Your task to perform on an android device: toggle location history Image 0: 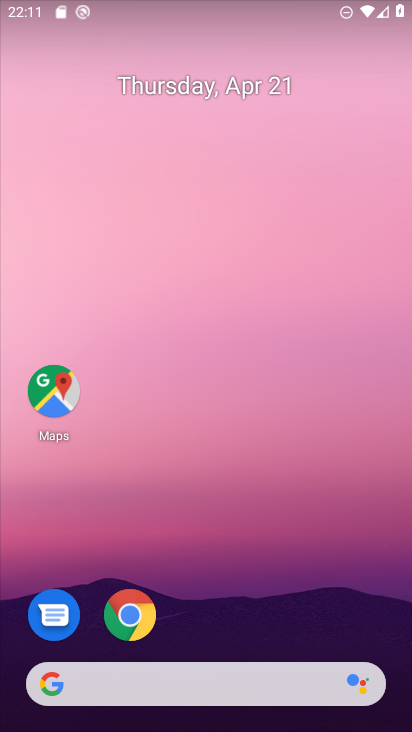
Step 0: click (173, 80)
Your task to perform on an android device: toggle location history Image 1: 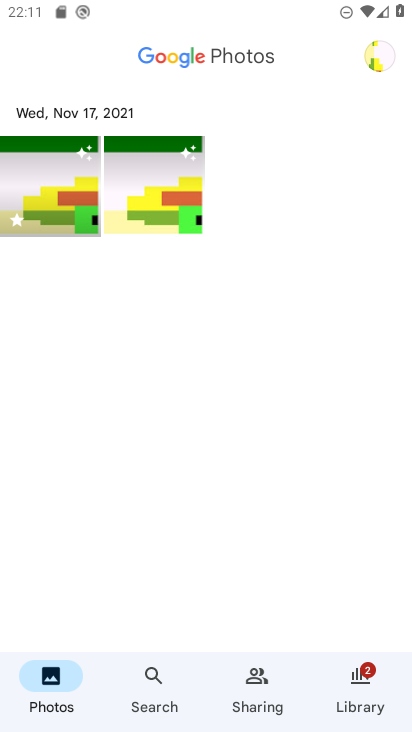
Step 1: press home button
Your task to perform on an android device: toggle location history Image 2: 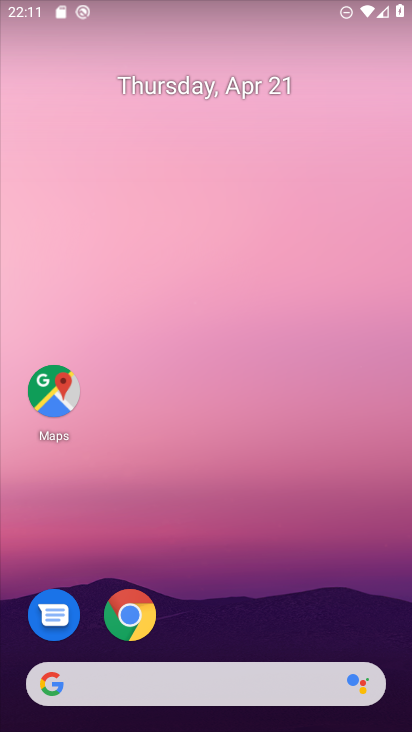
Step 2: drag from (223, 553) to (316, 4)
Your task to perform on an android device: toggle location history Image 3: 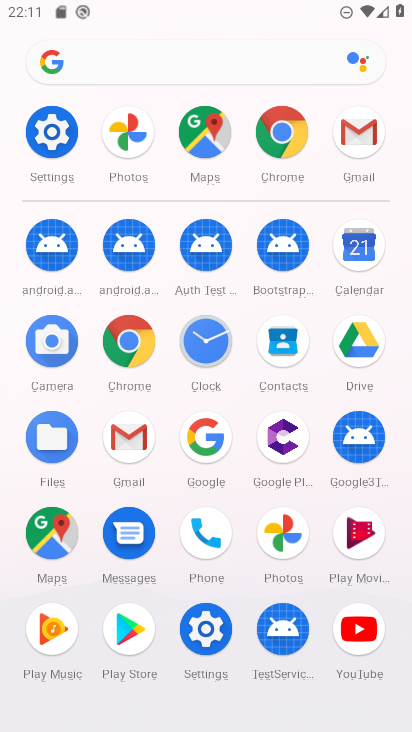
Step 3: click (198, 630)
Your task to perform on an android device: toggle location history Image 4: 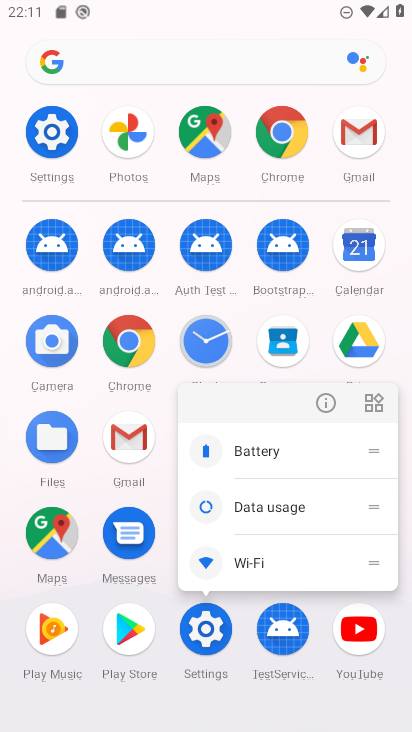
Step 4: click (322, 401)
Your task to perform on an android device: toggle location history Image 5: 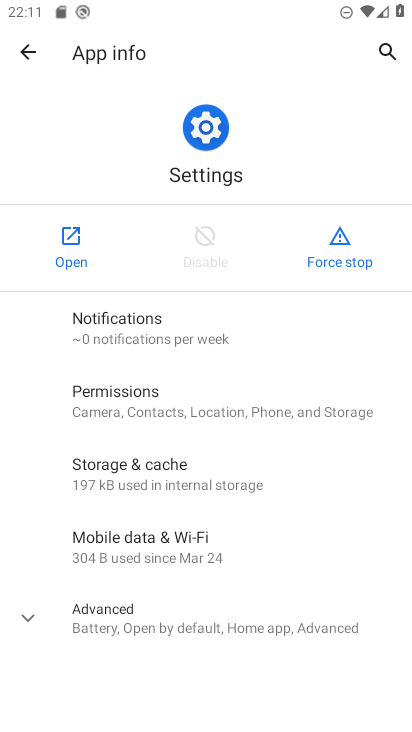
Step 5: click (67, 230)
Your task to perform on an android device: toggle location history Image 6: 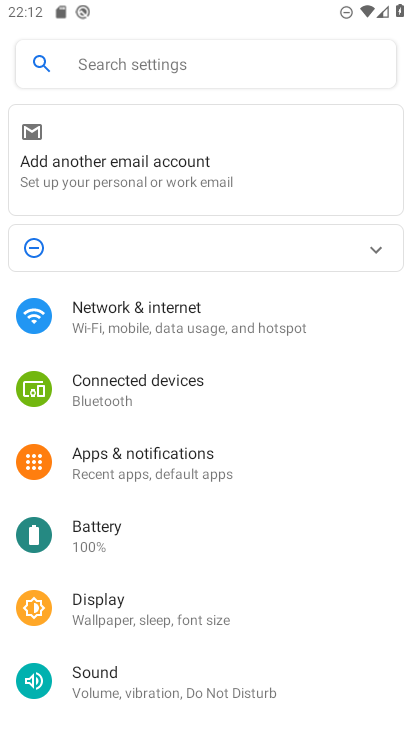
Step 6: drag from (178, 666) to (218, 224)
Your task to perform on an android device: toggle location history Image 7: 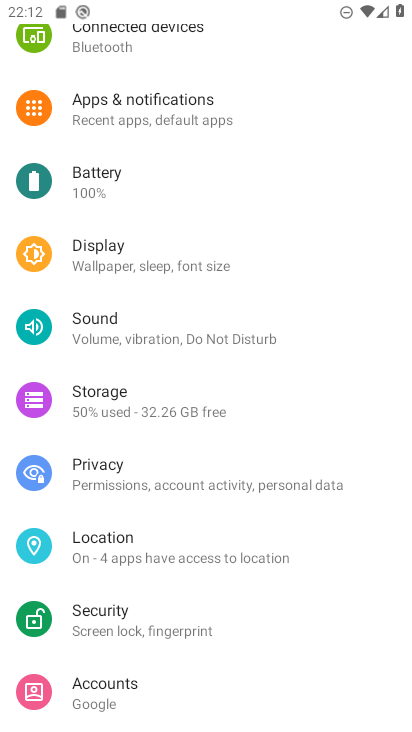
Step 7: click (149, 551)
Your task to perform on an android device: toggle location history Image 8: 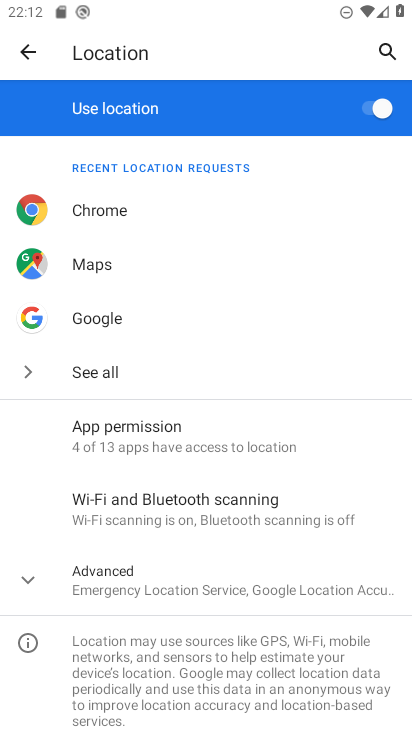
Step 8: click (192, 575)
Your task to perform on an android device: toggle location history Image 9: 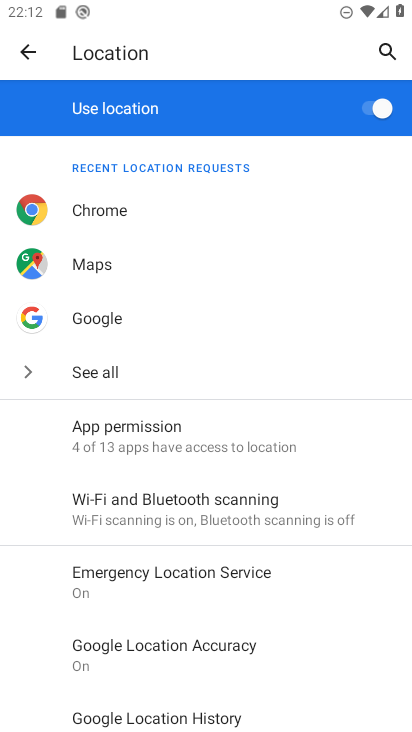
Step 9: drag from (217, 603) to (262, 297)
Your task to perform on an android device: toggle location history Image 10: 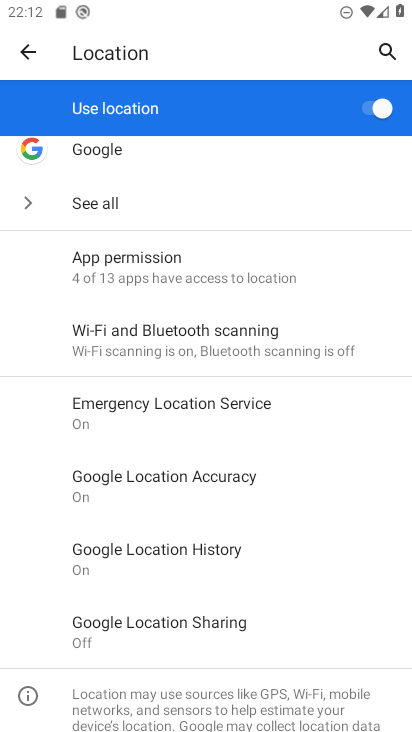
Step 10: click (227, 559)
Your task to perform on an android device: toggle location history Image 11: 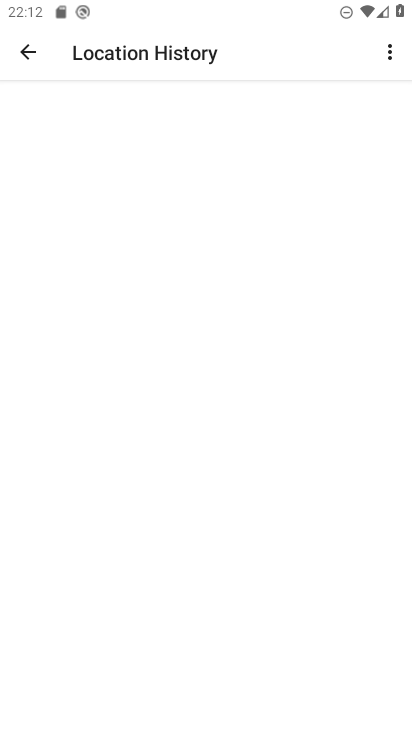
Step 11: drag from (226, 540) to (250, 3)
Your task to perform on an android device: toggle location history Image 12: 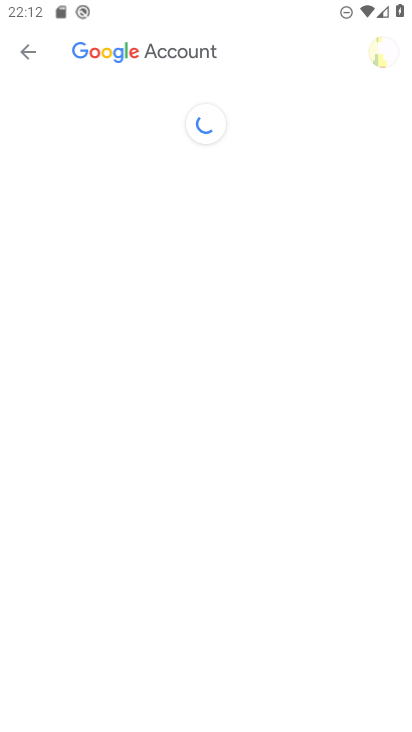
Step 12: drag from (226, 572) to (241, 130)
Your task to perform on an android device: toggle location history Image 13: 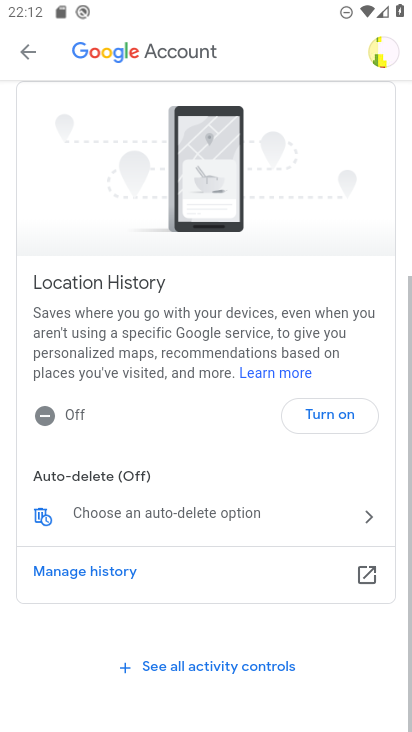
Step 13: drag from (220, 525) to (239, 122)
Your task to perform on an android device: toggle location history Image 14: 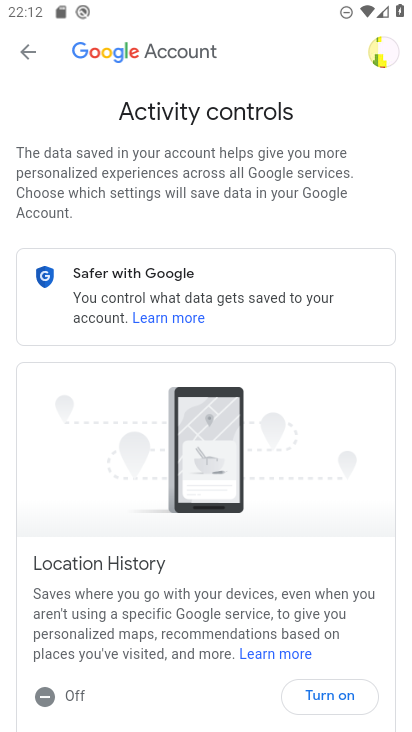
Step 14: drag from (231, 510) to (244, 140)
Your task to perform on an android device: toggle location history Image 15: 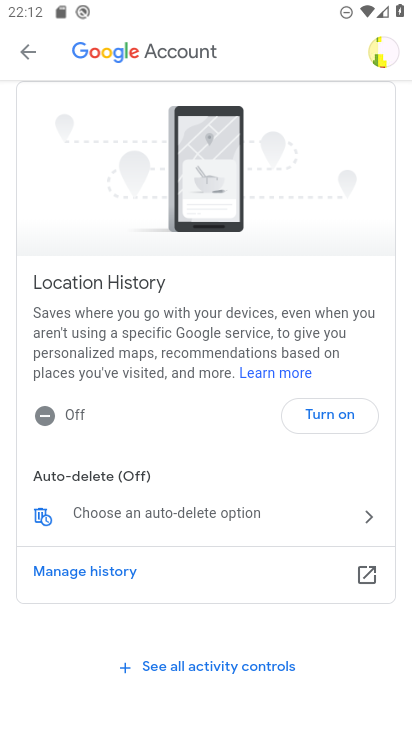
Step 15: click (344, 415)
Your task to perform on an android device: toggle location history Image 16: 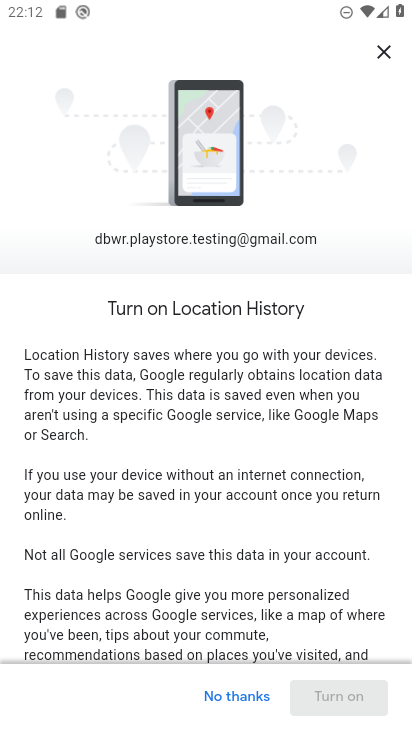
Step 16: drag from (248, 455) to (302, 94)
Your task to perform on an android device: toggle location history Image 17: 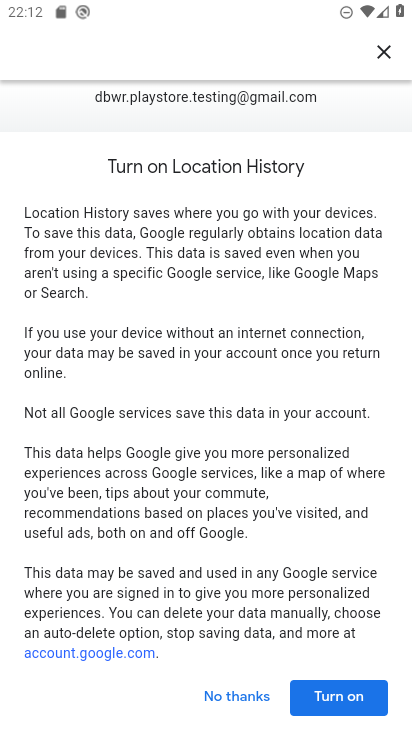
Step 17: click (340, 688)
Your task to perform on an android device: toggle location history Image 18: 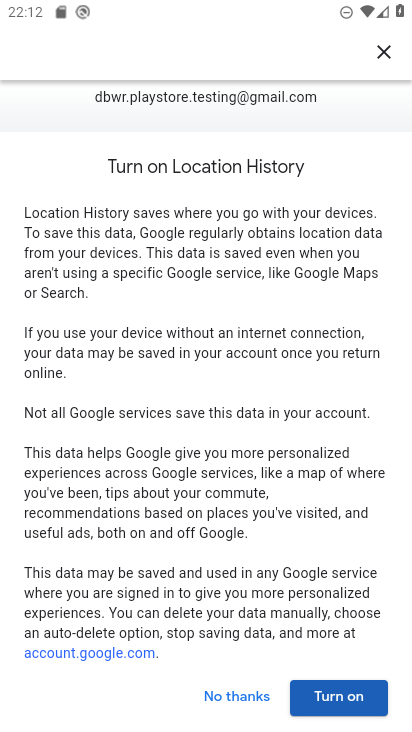
Step 18: click (332, 689)
Your task to perform on an android device: toggle location history Image 19: 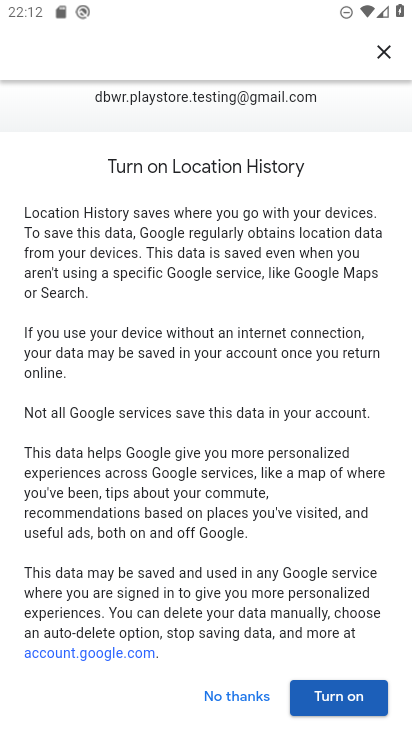
Step 19: click (334, 696)
Your task to perform on an android device: toggle location history Image 20: 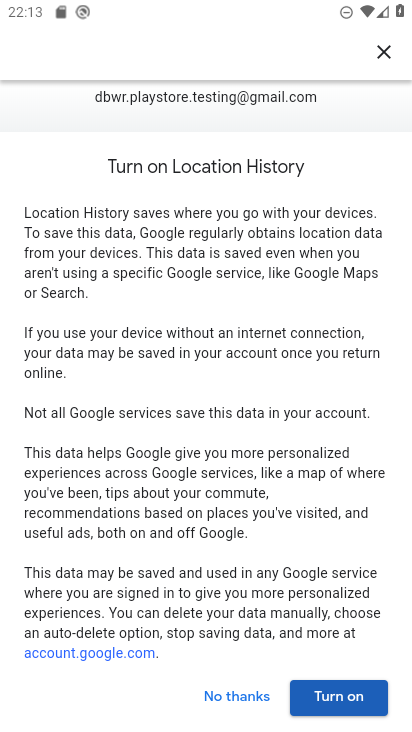
Step 20: drag from (169, 554) to (201, 185)
Your task to perform on an android device: toggle location history Image 21: 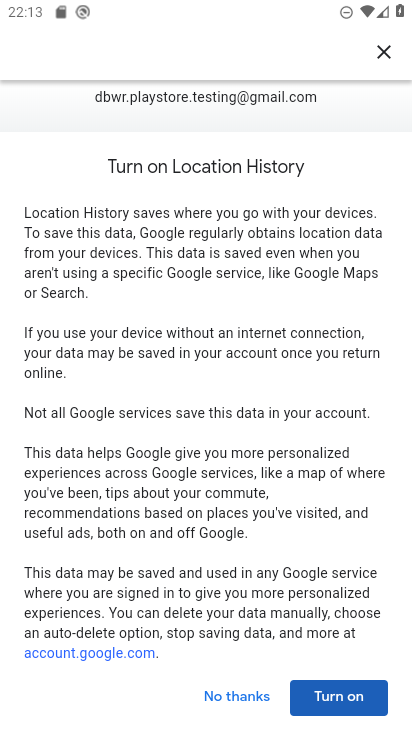
Step 21: drag from (214, 625) to (241, 314)
Your task to perform on an android device: toggle location history Image 22: 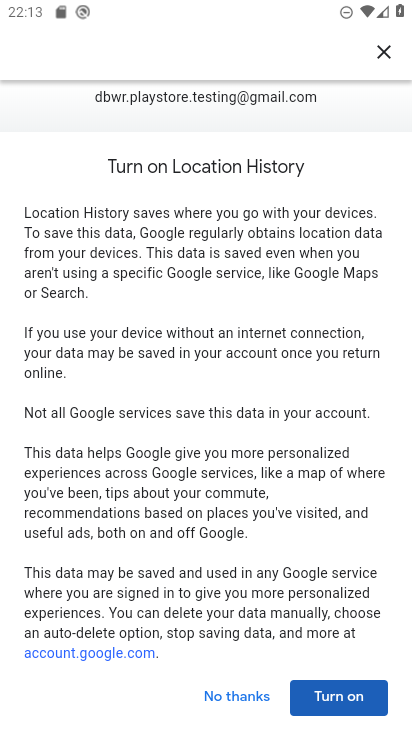
Step 22: drag from (184, 541) to (199, 317)
Your task to perform on an android device: toggle location history Image 23: 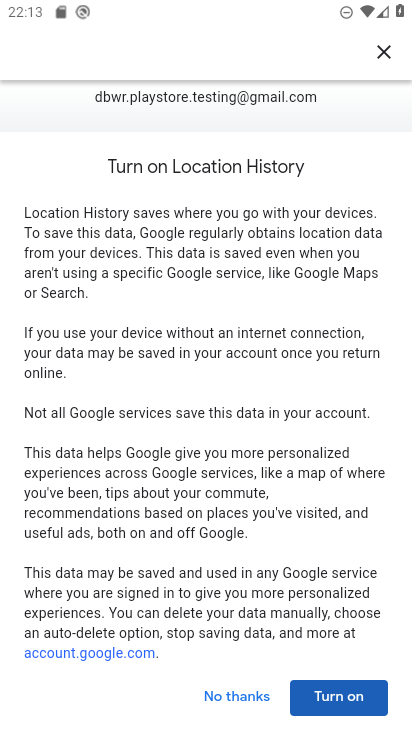
Step 23: drag from (206, 589) to (217, 465)
Your task to perform on an android device: toggle location history Image 24: 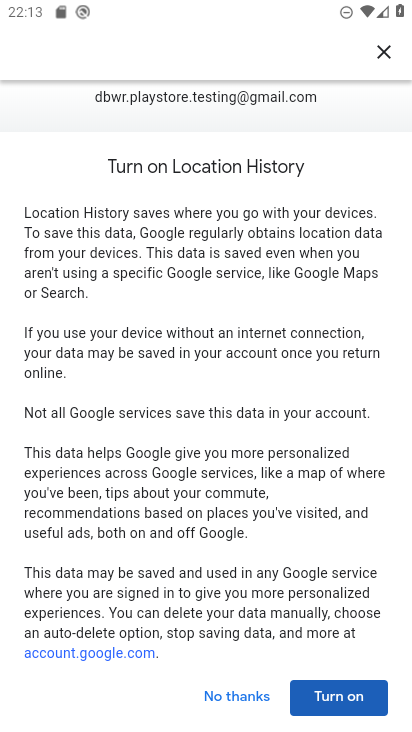
Step 24: drag from (220, 611) to (249, 449)
Your task to perform on an android device: toggle location history Image 25: 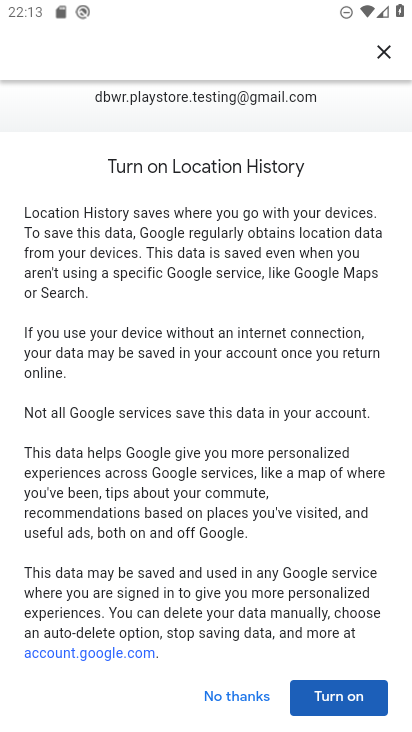
Step 25: drag from (203, 592) to (236, 342)
Your task to perform on an android device: toggle location history Image 26: 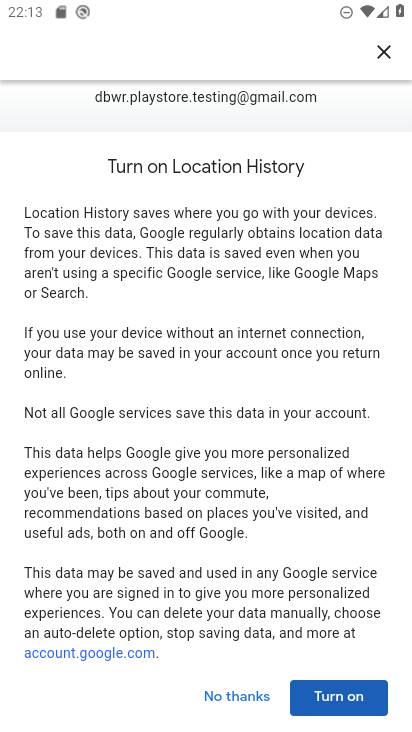
Step 26: click (328, 696)
Your task to perform on an android device: toggle location history Image 27: 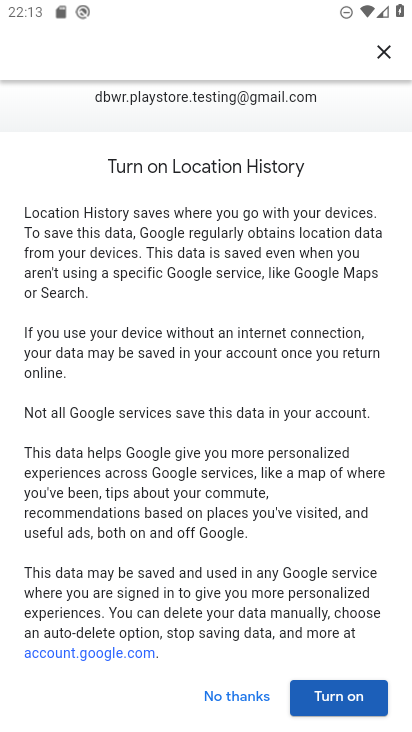
Step 27: click (337, 687)
Your task to perform on an android device: toggle location history Image 28: 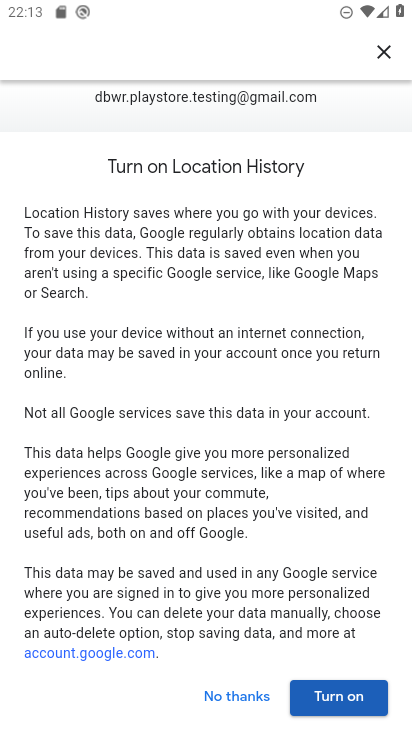
Step 28: click (341, 692)
Your task to perform on an android device: toggle location history Image 29: 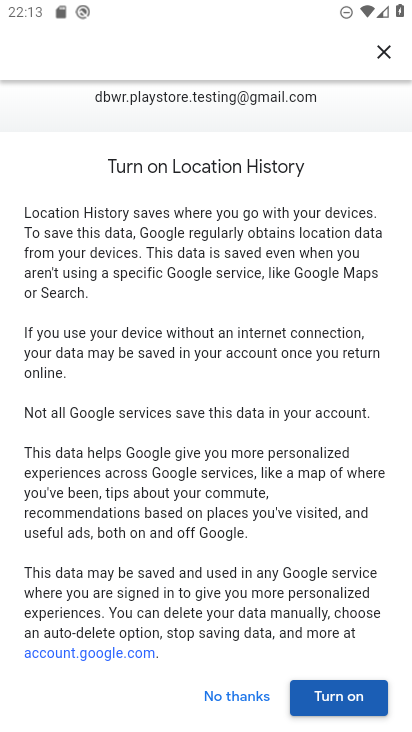
Step 29: click (344, 692)
Your task to perform on an android device: toggle location history Image 30: 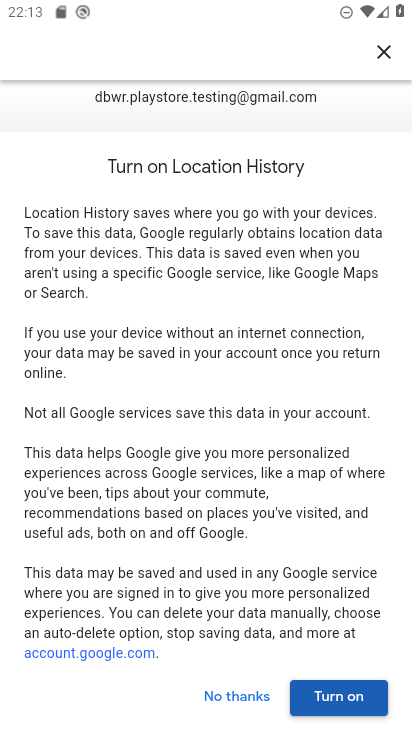
Step 30: click (344, 692)
Your task to perform on an android device: toggle location history Image 31: 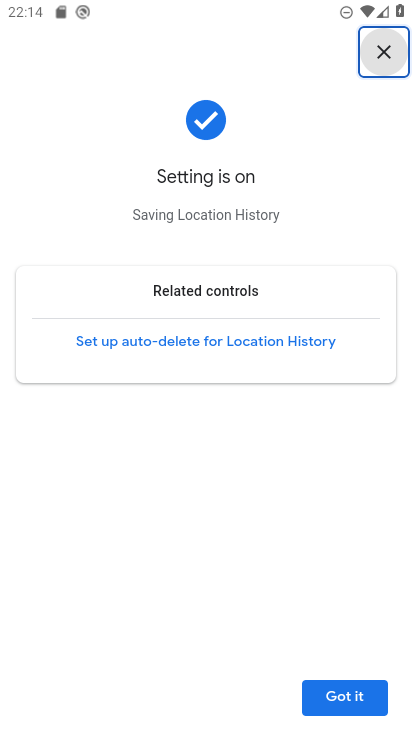
Step 31: click (323, 683)
Your task to perform on an android device: toggle location history Image 32: 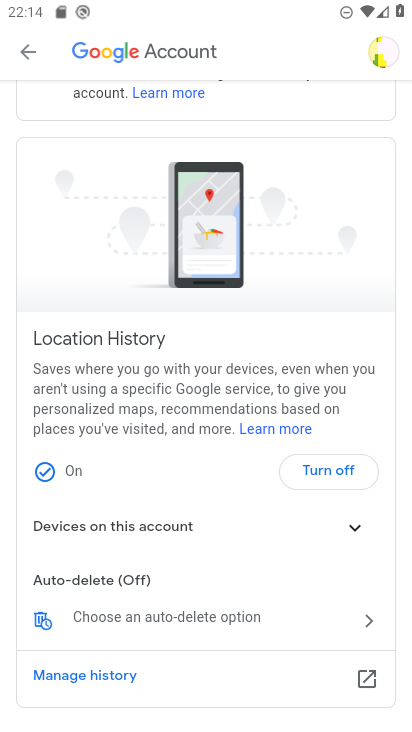
Step 32: task complete